Your task to perform on an android device: Show me the alarms in the clock app Image 0: 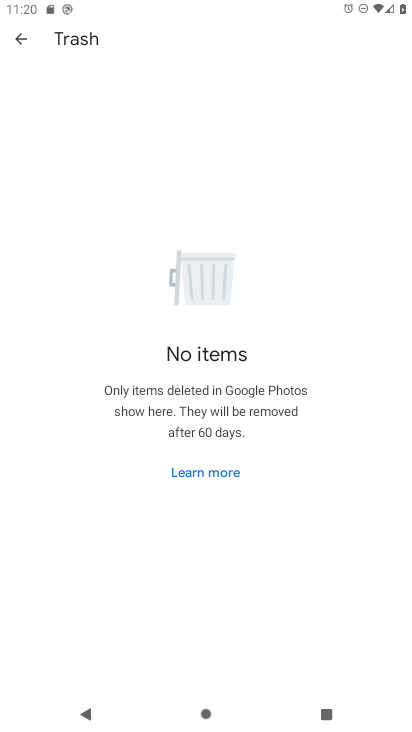
Step 0: press back button
Your task to perform on an android device: Show me the alarms in the clock app Image 1: 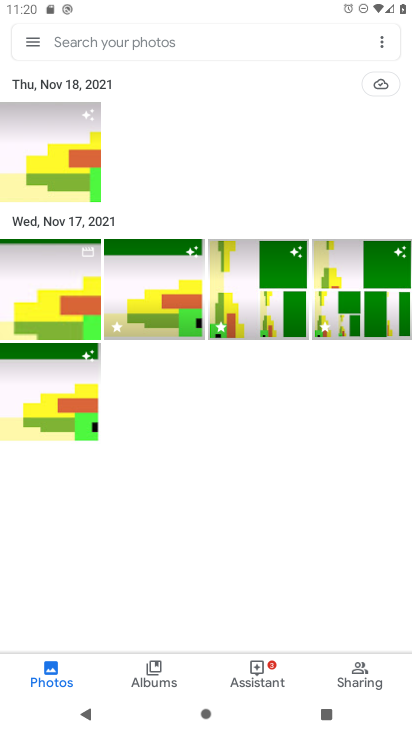
Step 1: press home button
Your task to perform on an android device: Show me the alarms in the clock app Image 2: 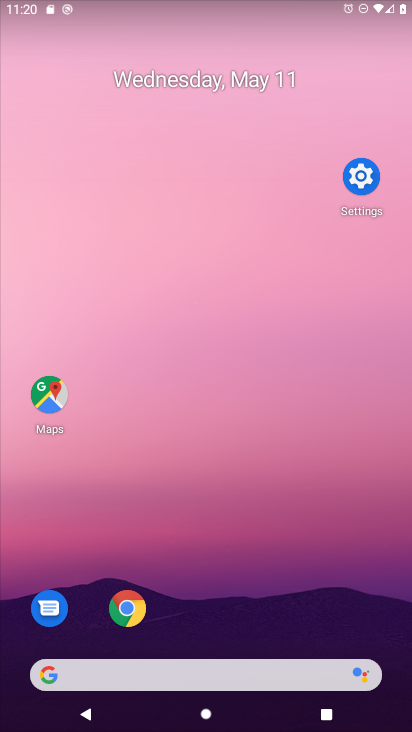
Step 2: drag from (191, 91) to (166, 52)
Your task to perform on an android device: Show me the alarms in the clock app Image 3: 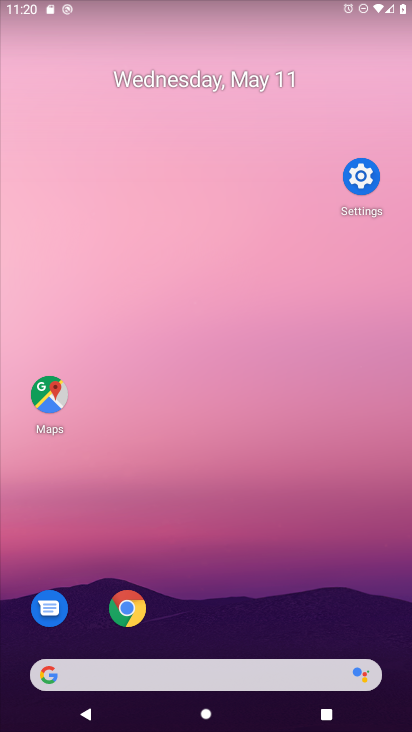
Step 3: drag from (279, 563) to (108, 117)
Your task to perform on an android device: Show me the alarms in the clock app Image 4: 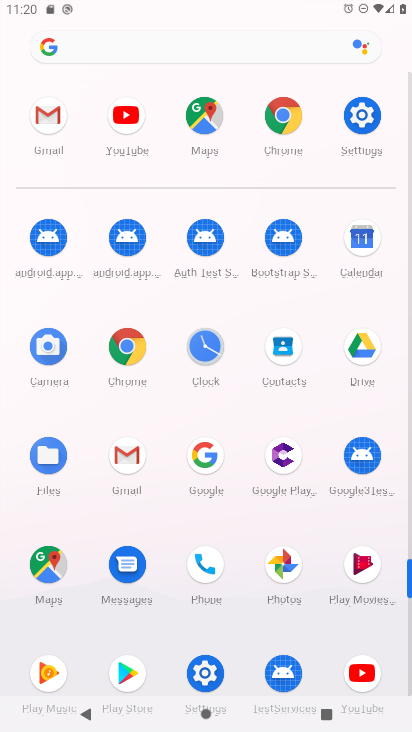
Step 4: click (205, 358)
Your task to perform on an android device: Show me the alarms in the clock app Image 5: 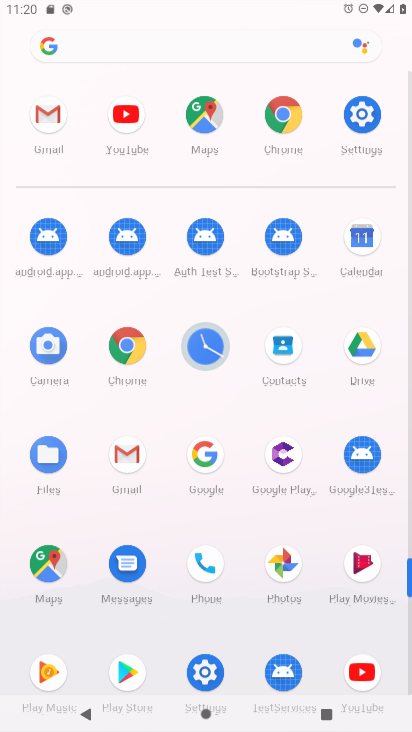
Step 5: click (215, 369)
Your task to perform on an android device: Show me the alarms in the clock app Image 6: 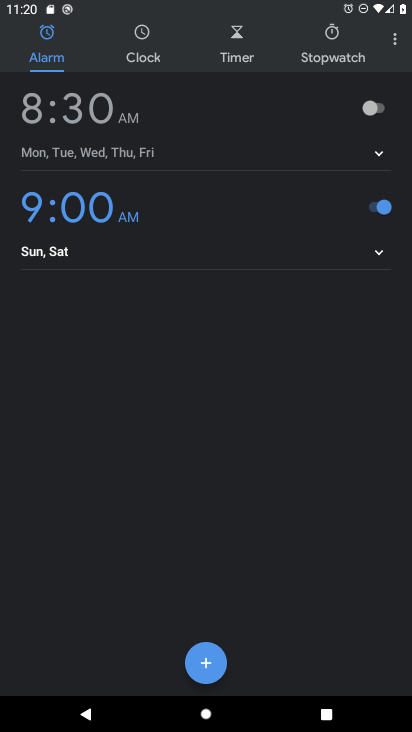
Step 6: drag from (269, 128) to (331, 544)
Your task to perform on an android device: Show me the alarms in the clock app Image 7: 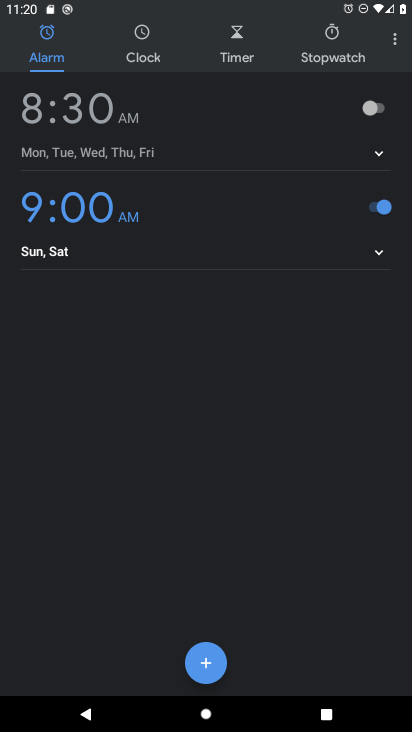
Step 7: click (380, 152)
Your task to perform on an android device: Show me the alarms in the clock app Image 8: 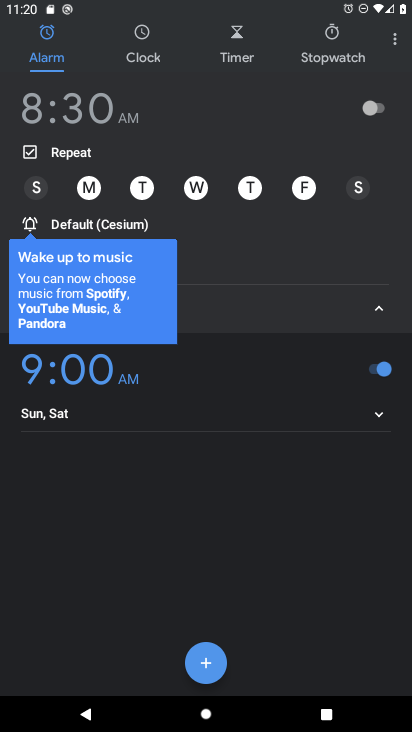
Step 8: click (382, 415)
Your task to perform on an android device: Show me the alarms in the clock app Image 9: 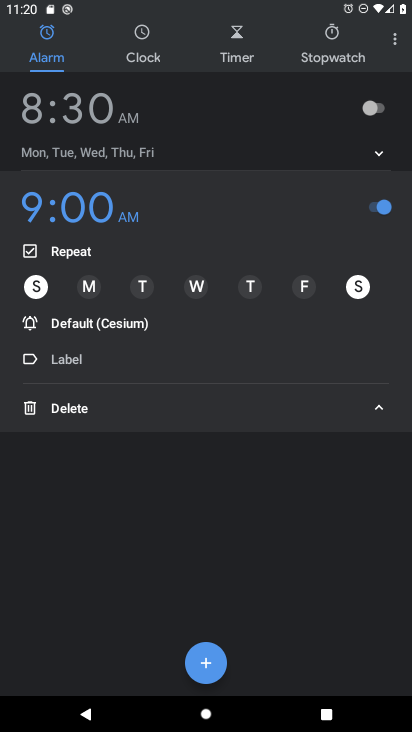
Step 9: click (374, 415)
Your task to perform on an android device: Show me the alarms in the clock app Image 10: 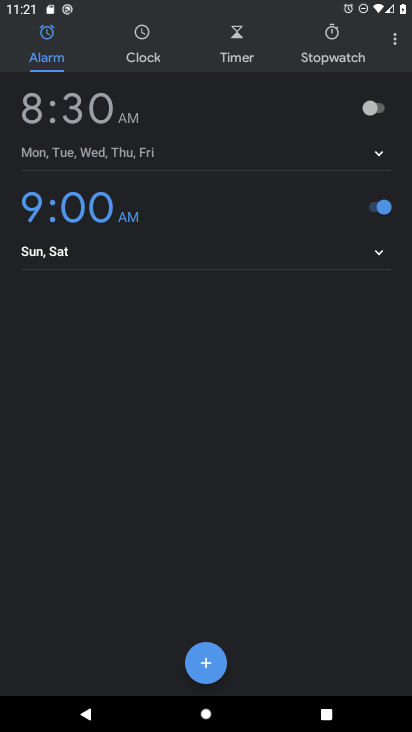
Step 10: task complete